Your task to perform on an android device: Go to display settings Image 0: 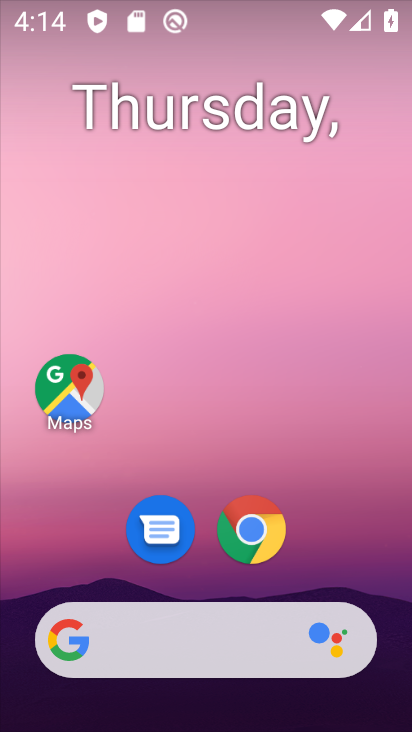
Step 0: drag from (230, 723) to (244, 128)
Your task to perform on an android device: Go to display settings Image 1: 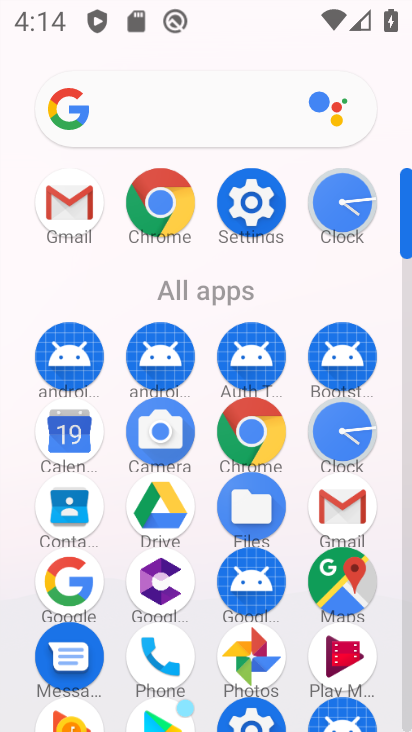
Step 1: click (251, 206)
Your task to perform on an android device: Go to display settings Image 2: 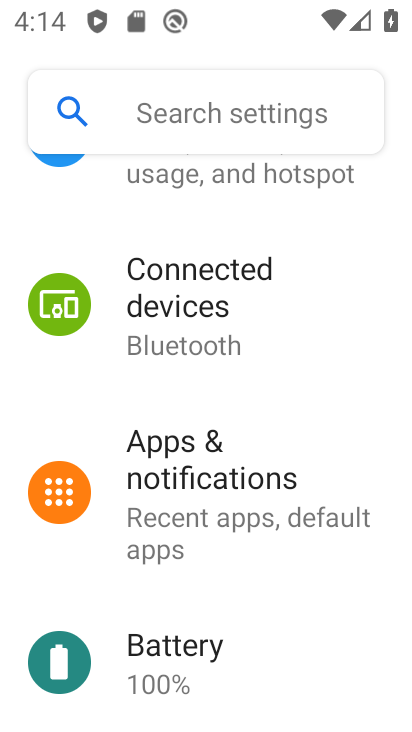
Step 2: drag from (243, 301) to (237, 624)
Your task to perform on an android device: Go to display settings Image 3: 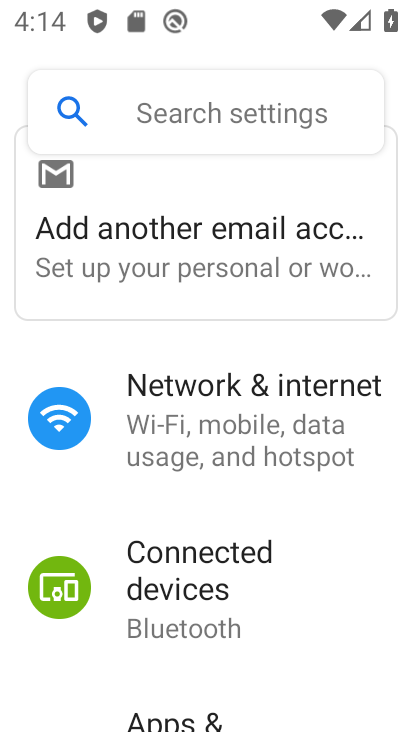
Step 3: drag from (223, 645) to (221, 230)
Your task to perform on an android device: Go to display settings Image 4: 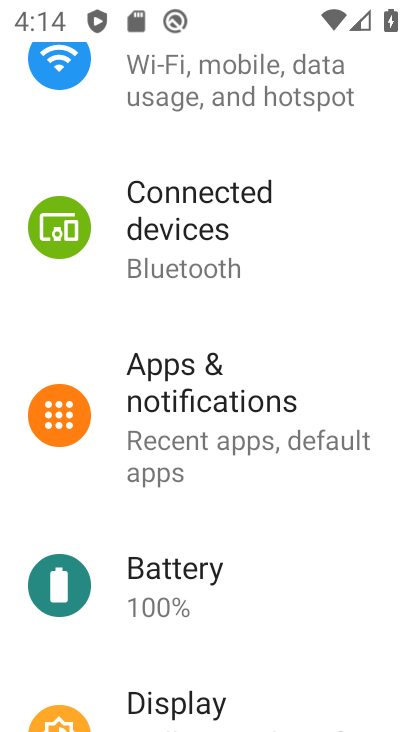
Step 4: click (193, 700)
Your task to perform on an android device: Go to display settings Image 5: 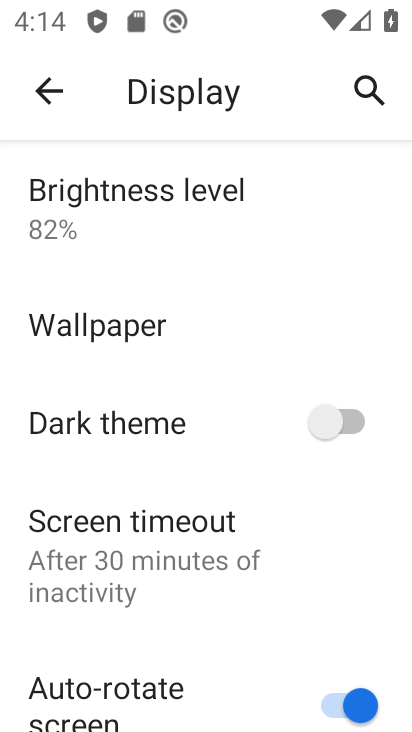
Step 5: task complete